Your task to perform on an android device: See recent photos Image 0: 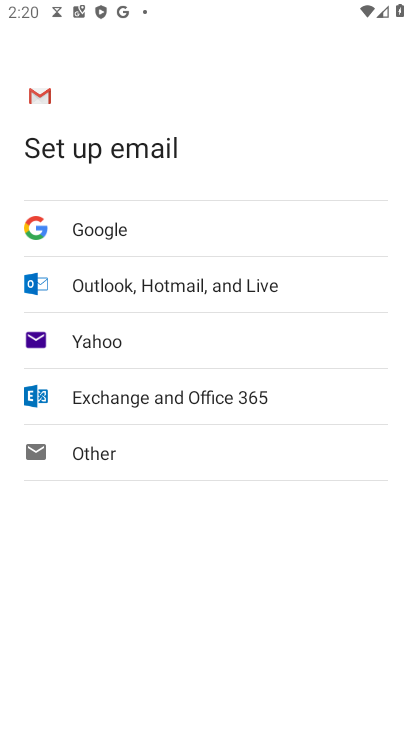
Step 0: press home button
Your task to perform on an android device: See recent photos Image 1: 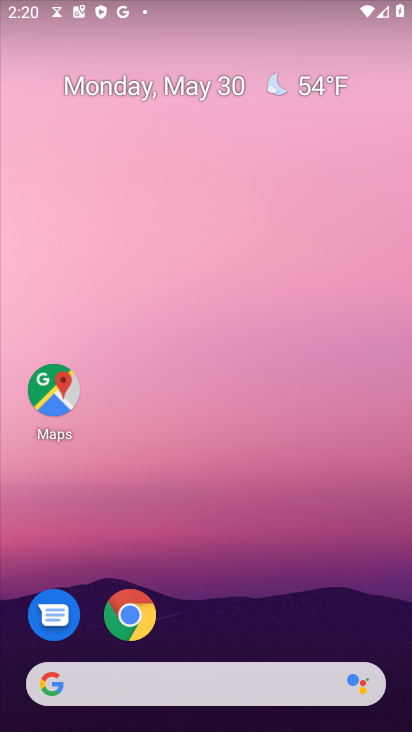
Step 1: drag from (331, 544) to (400, 234)
Your task to perform on an android device: See recent photos Image 2: 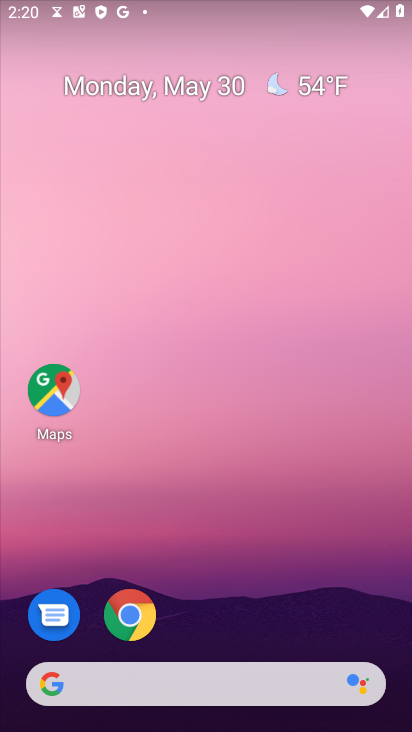
Step 2: drag from (304, 392) to (376, 16)
Your task to perform on an android device: See recent photos Image 3: 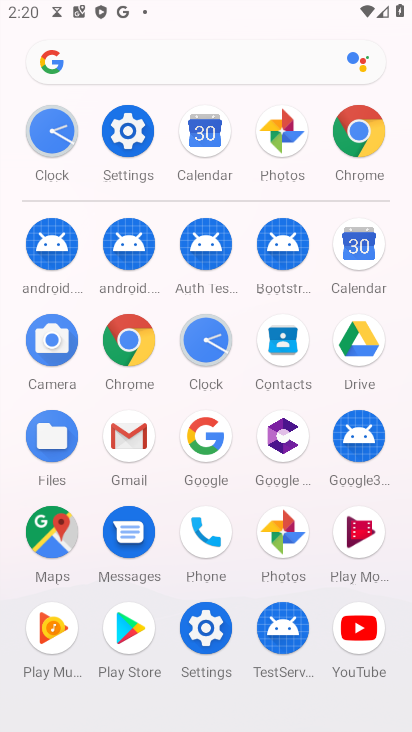
Step 3: click (302, 151)
Your task to perform on an android device: See recent photos Image 4: 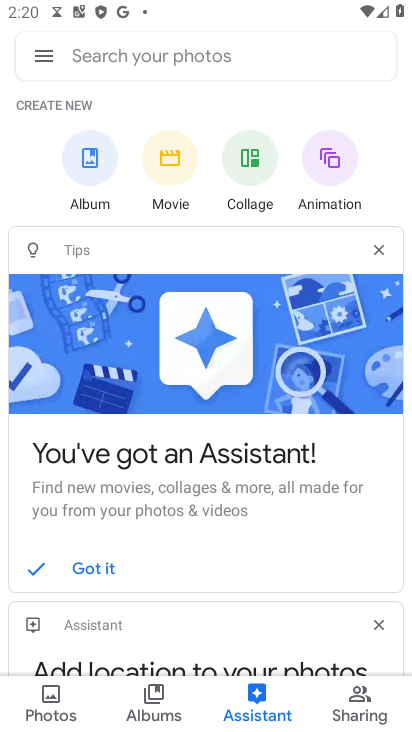
Step 4: click (74, 718)
Your task to perform on an android device: See recent photos Image 5: 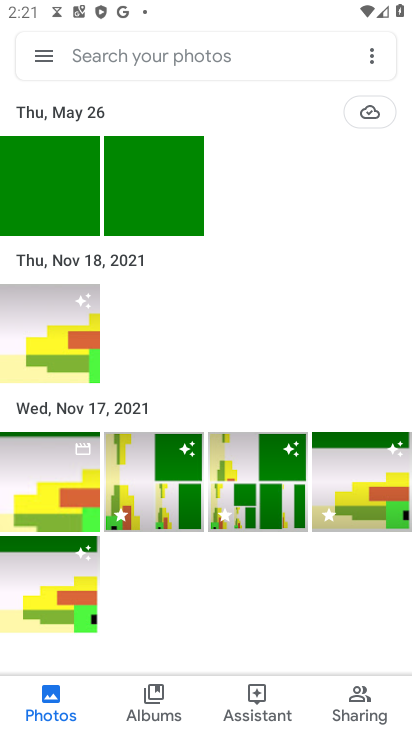
Step 5: task complete